Your task to perform on an android device: turn on translation in the chrome app Image 0: 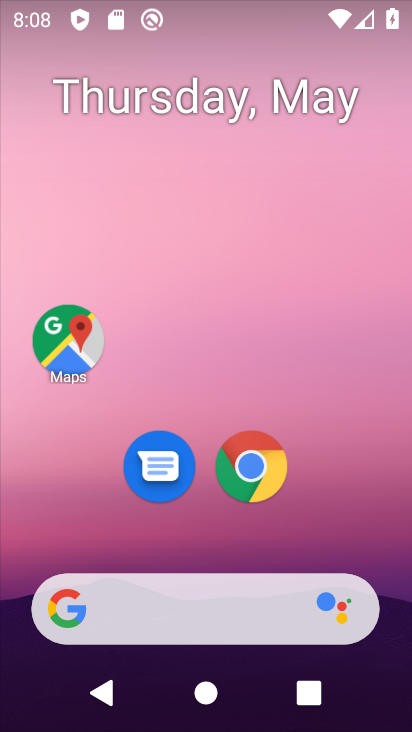
Step 0: drag from (210, 555) to (161, 76)
Your task to perform on an android device: turn on translation in the chrome app Image 1: 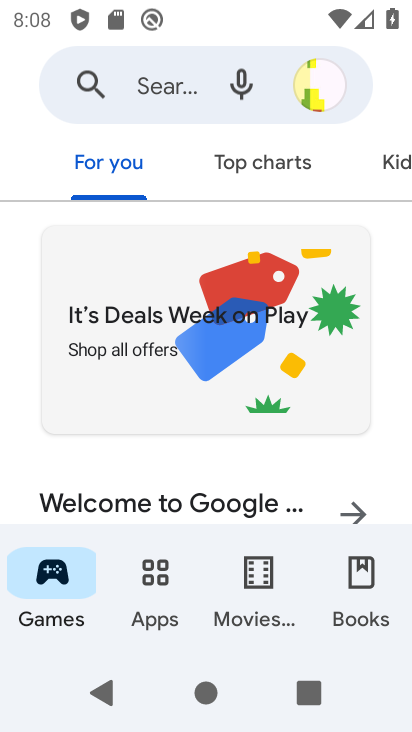
Step 1: press home button
Your task to perform on an android device: turn on translation in the chrome app Image 2: 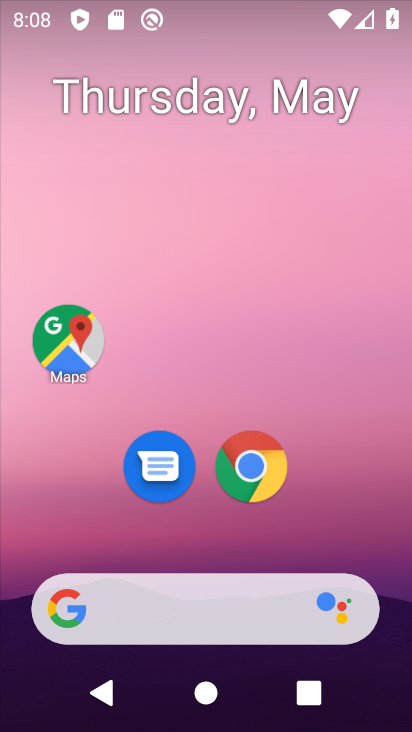
Step 2: click (227, 485)
Your task to perform on an android device: turn on translation in the chrome app Image 3: 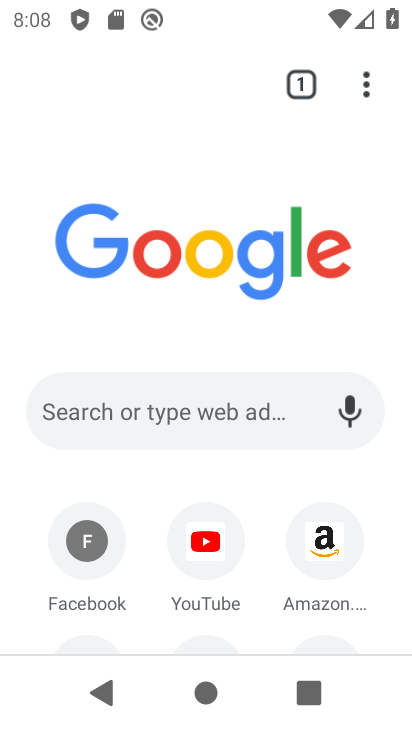
Step 3: click (367, 81)
Your task to perform on an android device: turn on translation in the chrome app Image 4: 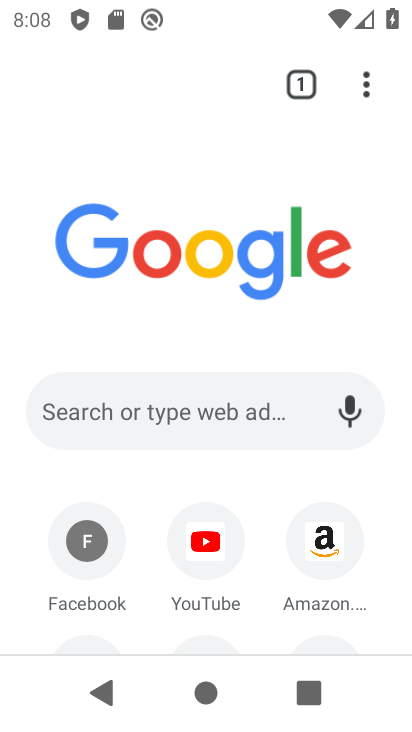
Step 4: drag from (361, 87) to (55, 521)
Your task to perform on an android device: turn on translation in the chrome app Image 5: 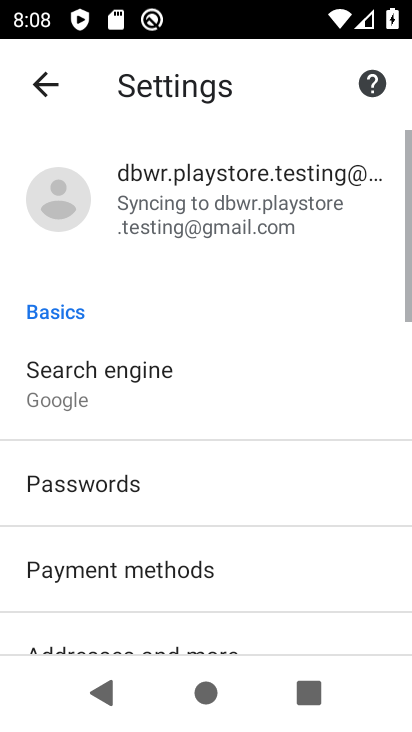
Step 5: drag from (99, 559) to (80, 0)
Your task to perform on an android device: turn on translation in the chrome app Image 6: 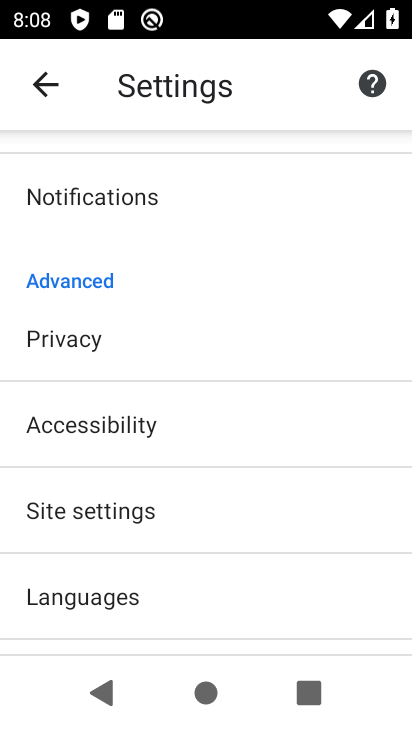
Step 6: click (119, 590)
Your task to perform on an android device: turn on translation in the chrome app Image 7: 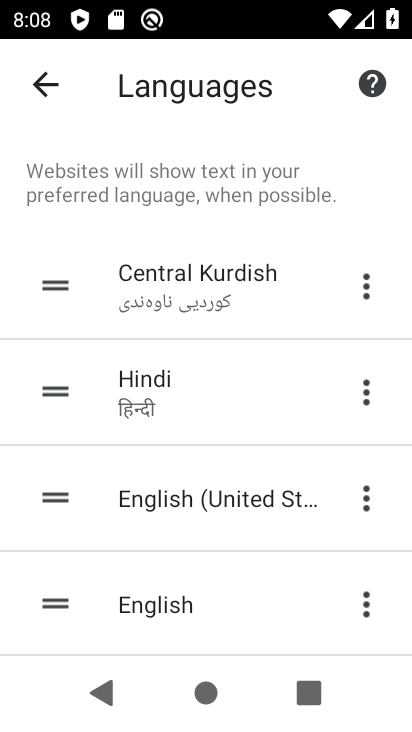
Step 7: drag from (234, 444) to (187, 4)
Your task to perform on an android device: turn on translation in the chrome app Image 8: 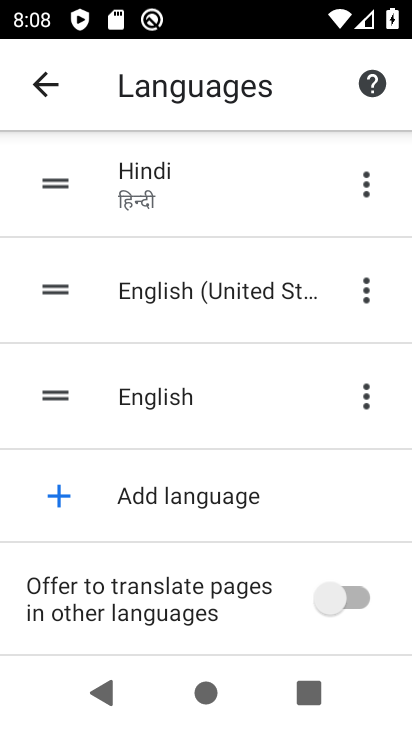
Step 8: click (339, 594)
Your task to perform on an android device: turn on translation in the chrome app Image 9: 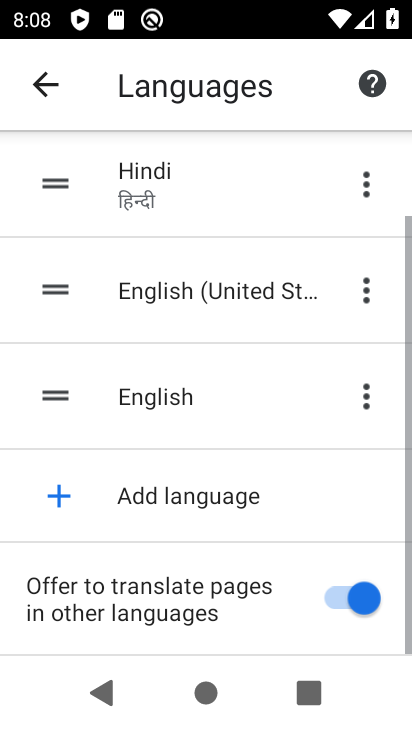
Step 9: task complete